Your task to perform on an android device: Check the weather Image 0: 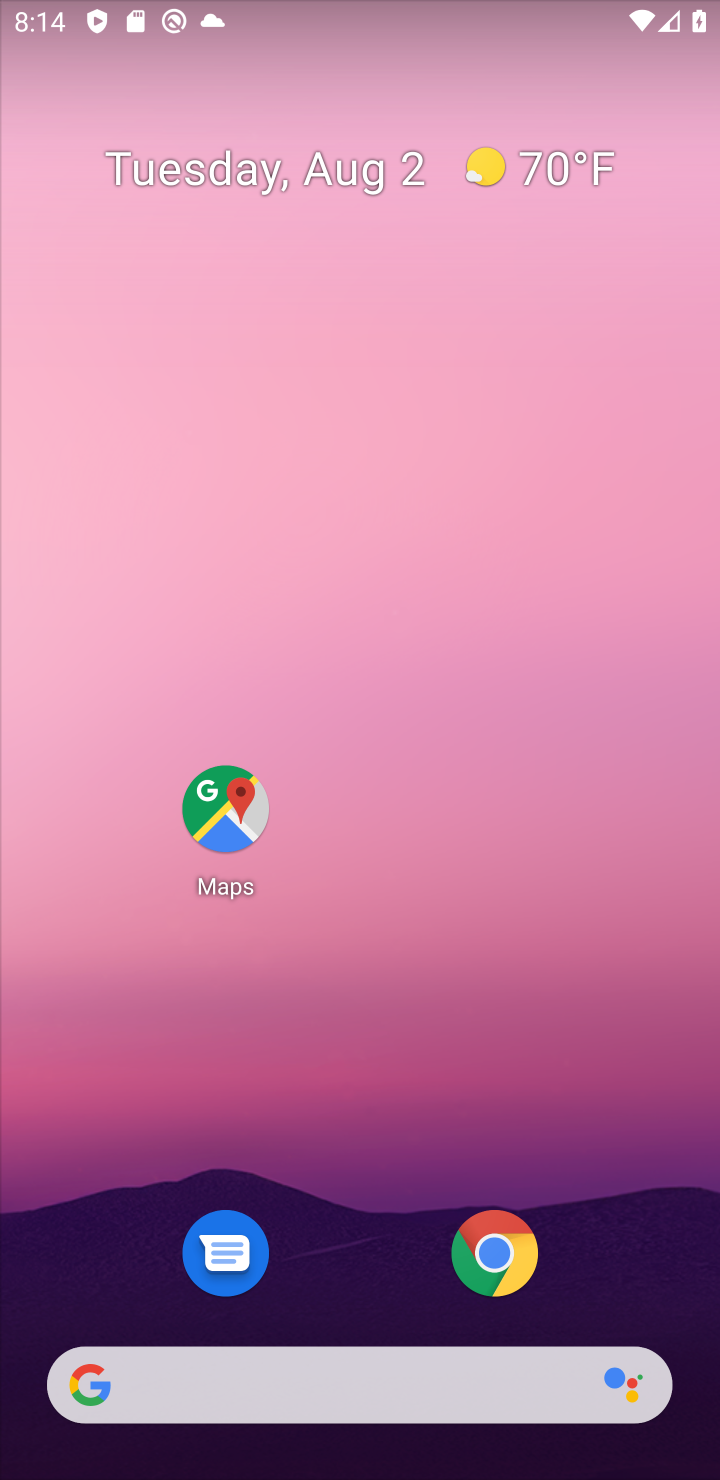
Step 0: click (535, 144)
Your task to perform on an android device: Check the weather Image 1: 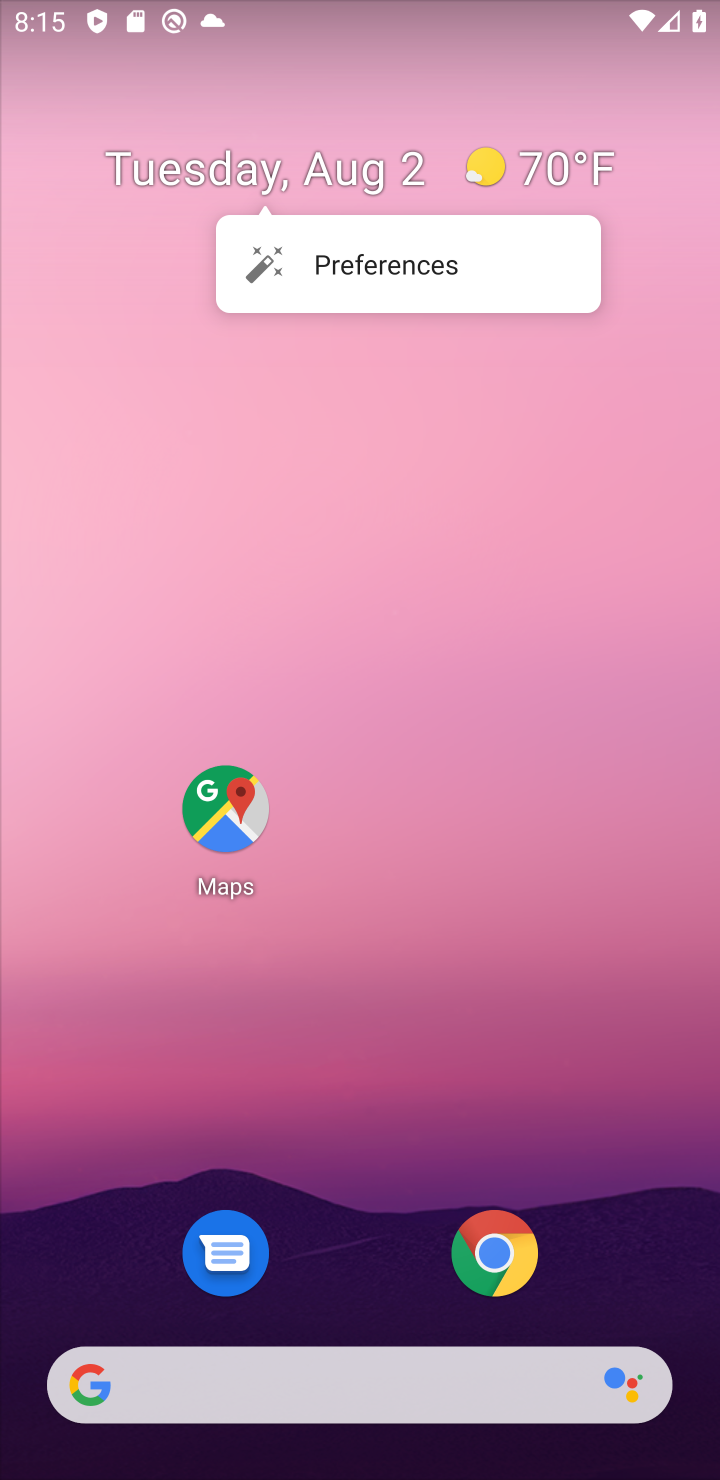
Step 1: click (548, 157)
Your task to perform on an android device: Check the weather Image 2: 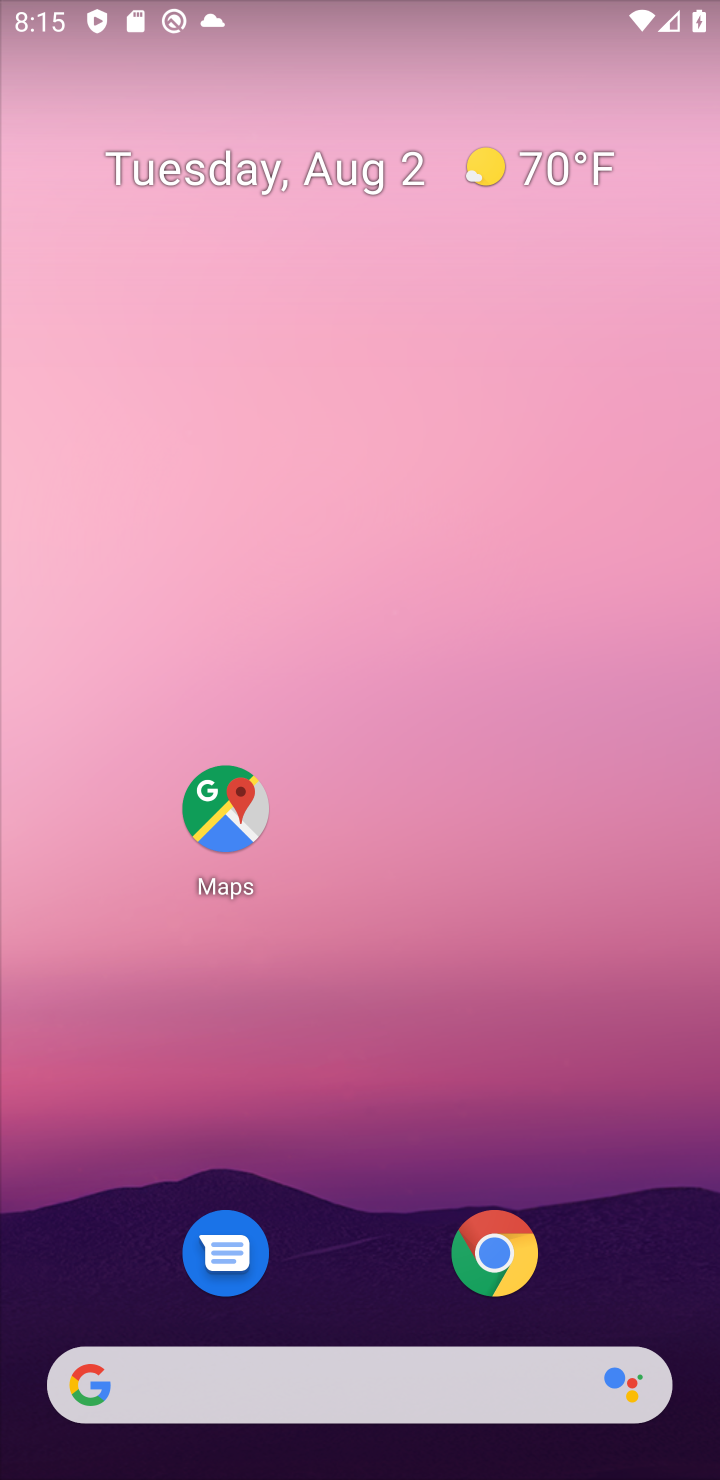
Step 2: click (551, 165)
Your task to perform on an android device: Check the weather Image 3: 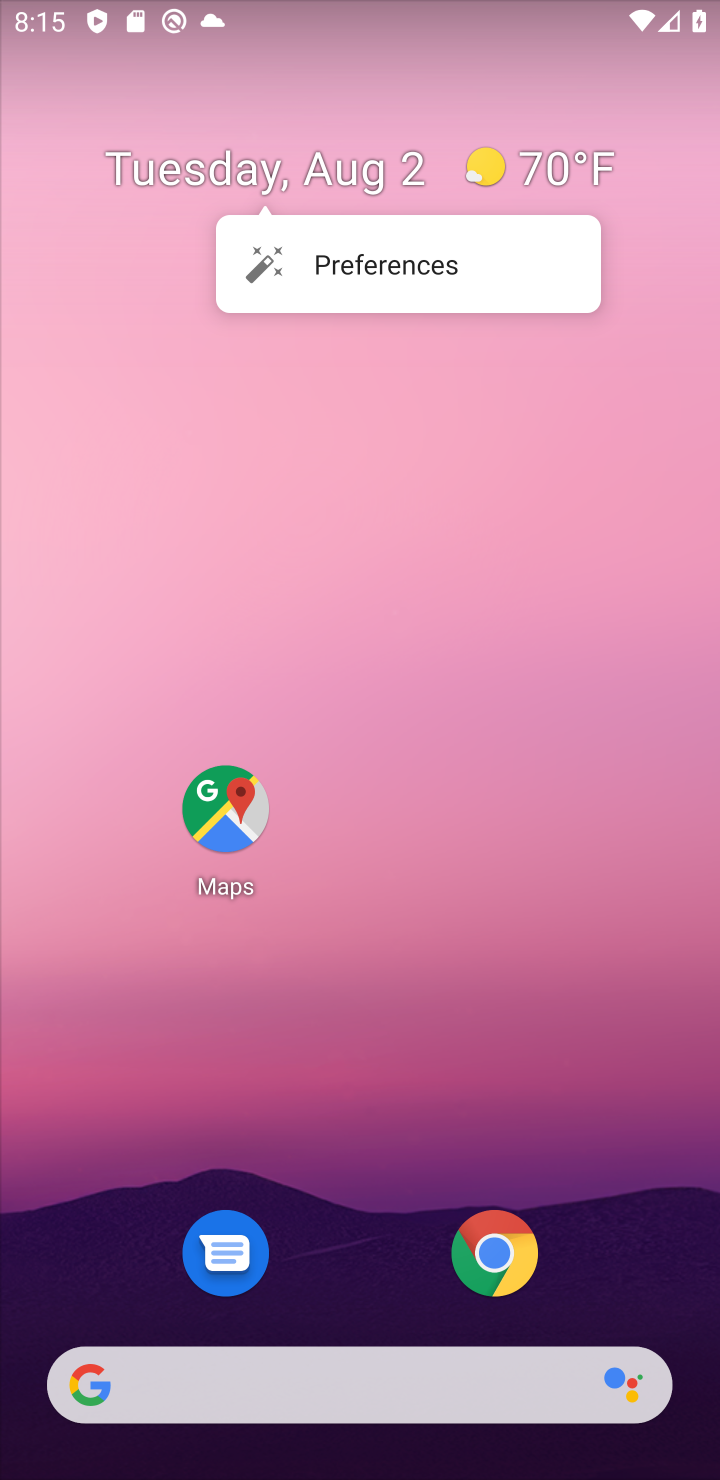
Step 3: click (575, 167)
Your task to perform on an android device: Check the weather Image 4: 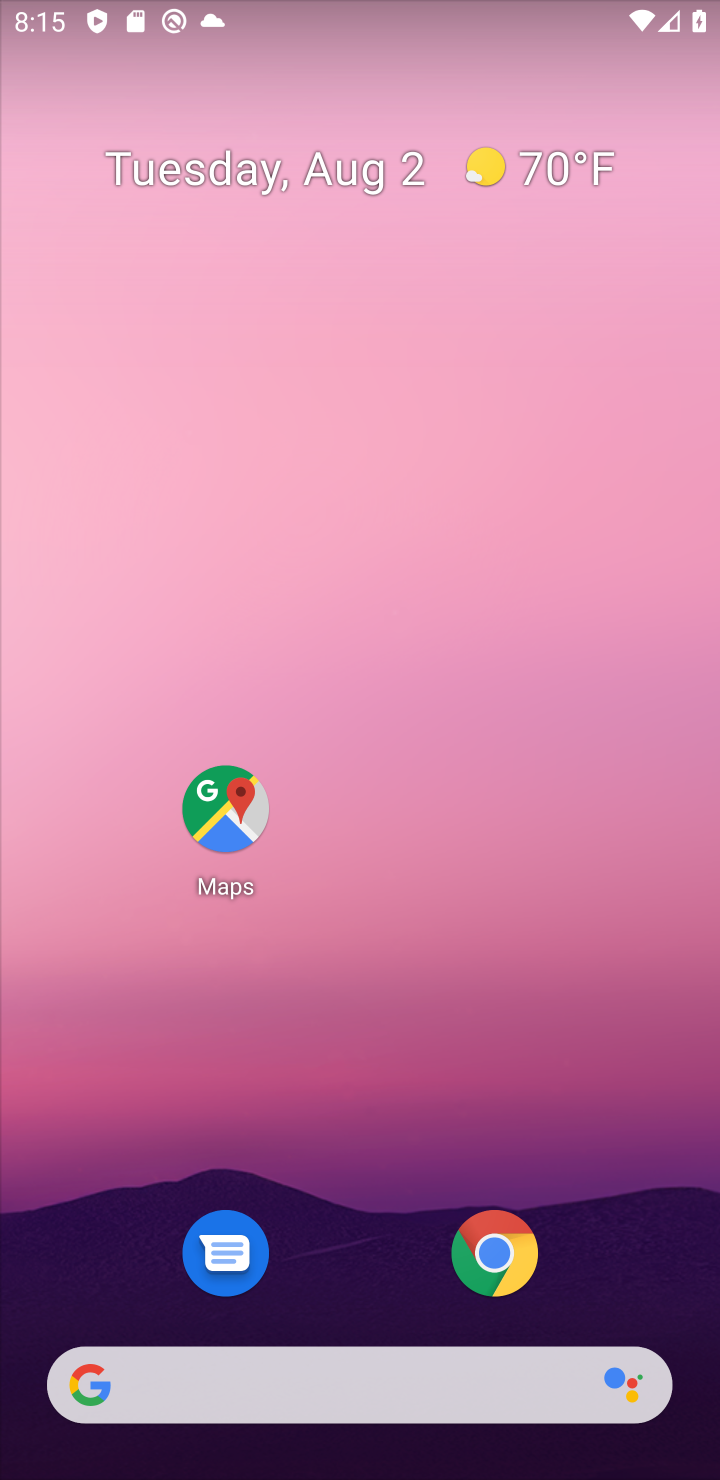
Step 4: click (570, 172)
Your task to perform on an android device: Check the weather Image 5: 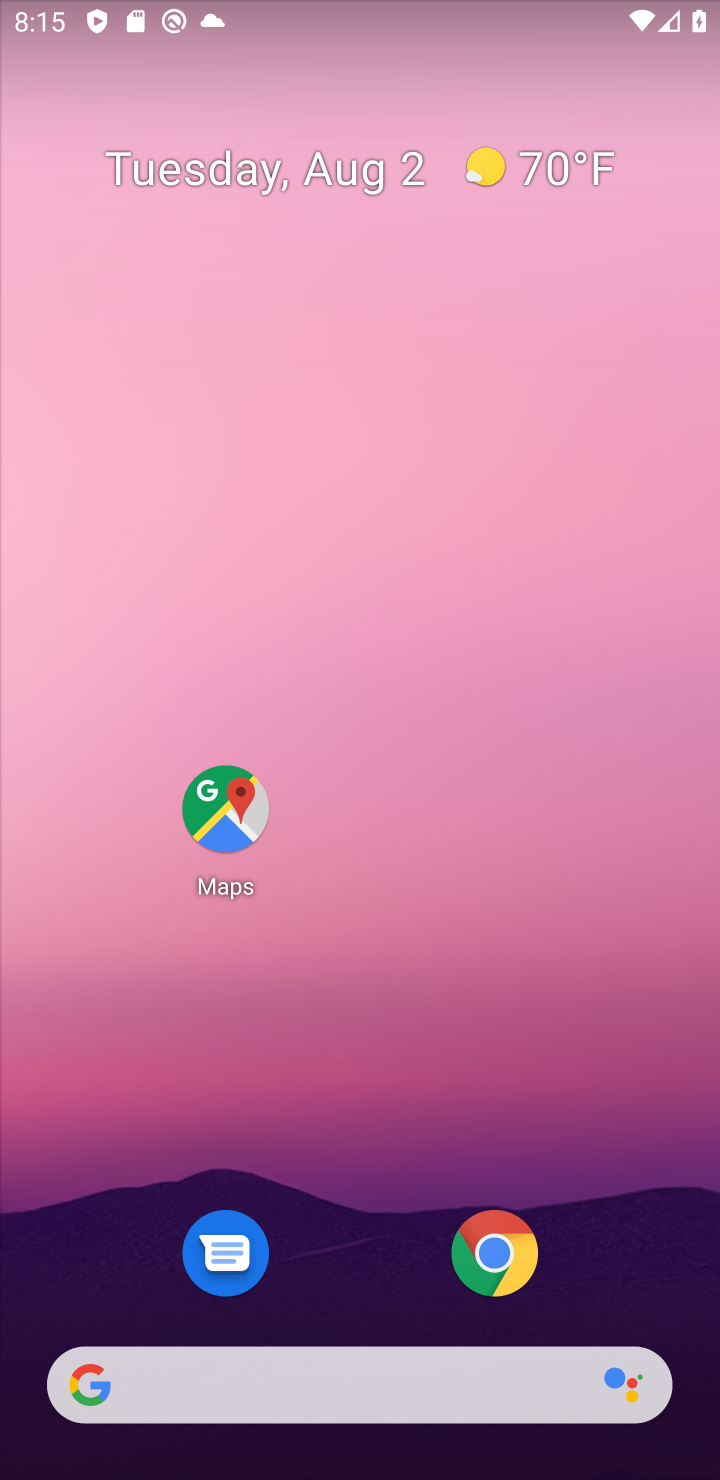
Step 5: click (518, 161)
Your task to perform on an android device: Check the weather Image 6: 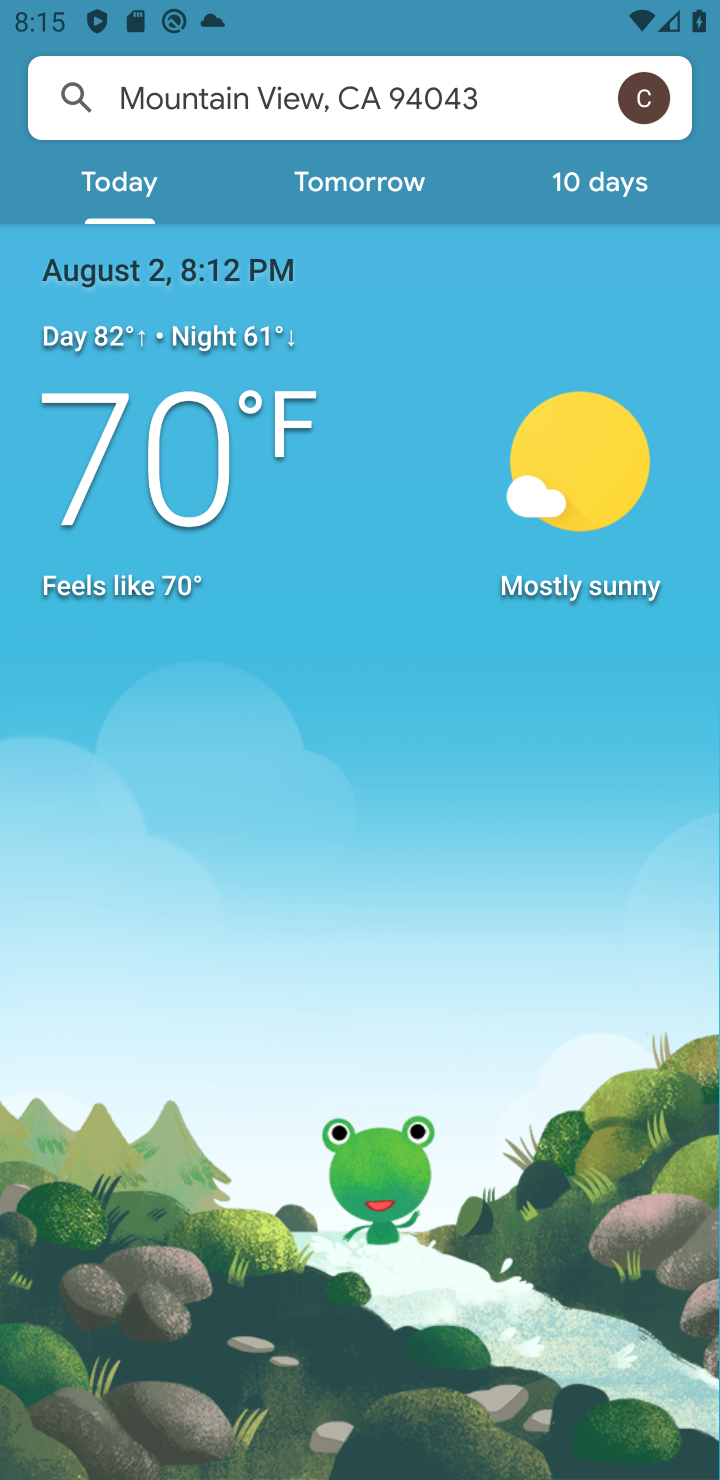
Step 6: task complete